Your task to perform on an android device: Open calendar and show me the third week of next month Image 0: 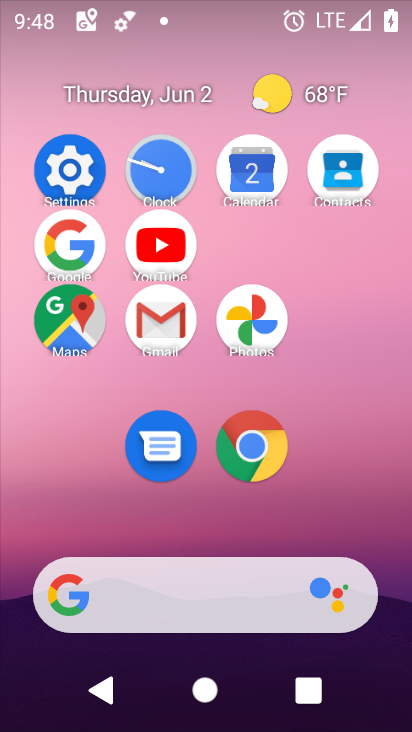
Step 0: click (247, 174)
Your task to perform on an android device: Open calendar and show me the third week of next month Image 1: 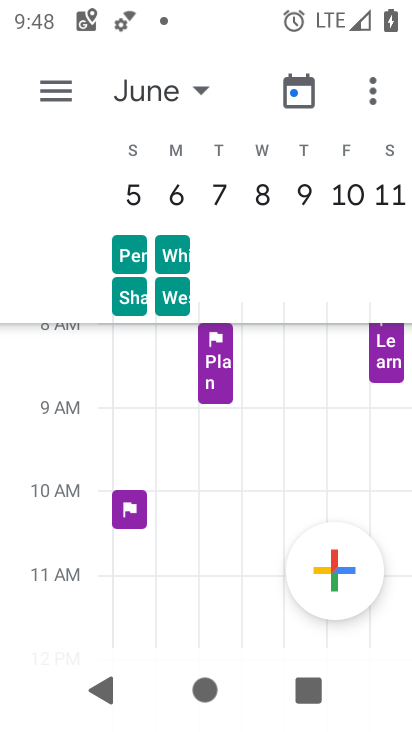
Step 1: click (173, 103)
Your task to perform on an android device: Open calendar and show me the third week of next month Image 2: 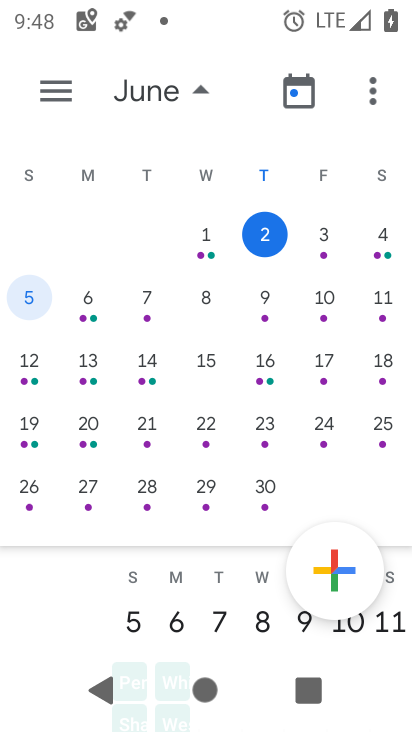
Step 2: drag from (396, 401) to (5, 335)
Your task to perform on an android device: Open calendar and show me the third week of next month Image 3: 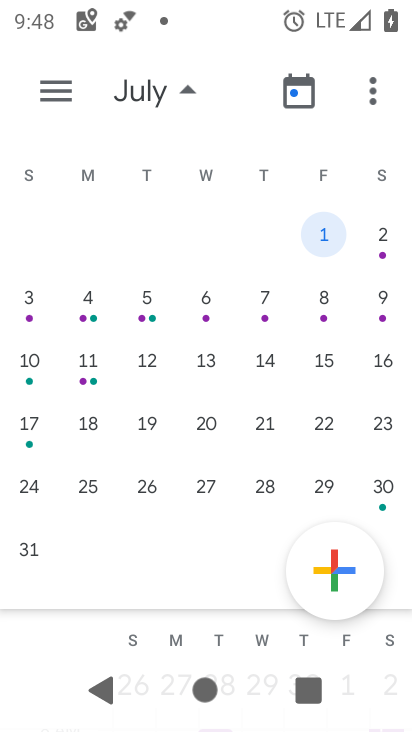
Step 3: click (37, 90)
Your task to perform on an android device: Open calendar and show me the third week of next month Image 4: 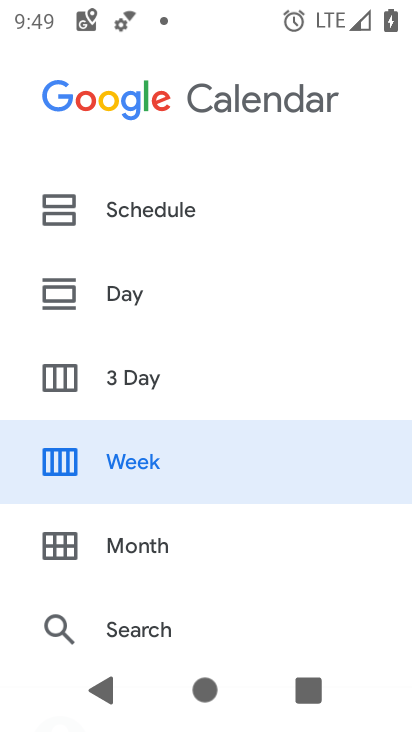
Step 4: click (190, 467)
Your task to perform on an android device: Open calendar and show me the third week of next month Image 5: 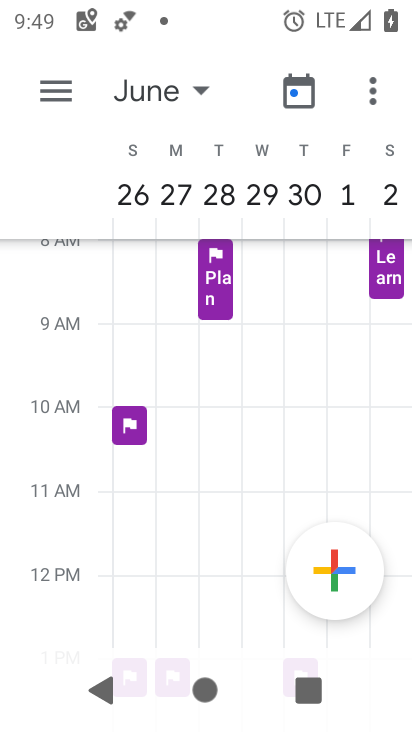
Step 5: task complete